Your task to perform on an android device: Open my contact list Image 0: 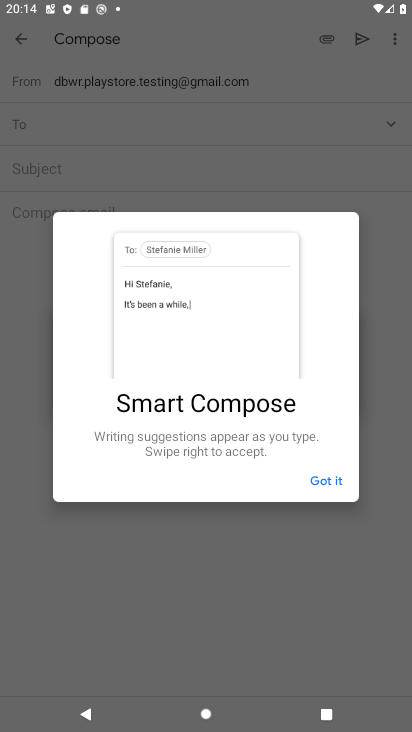
Step 0: press home button
Your task to perform on an android device: Open my contact list Image 1: 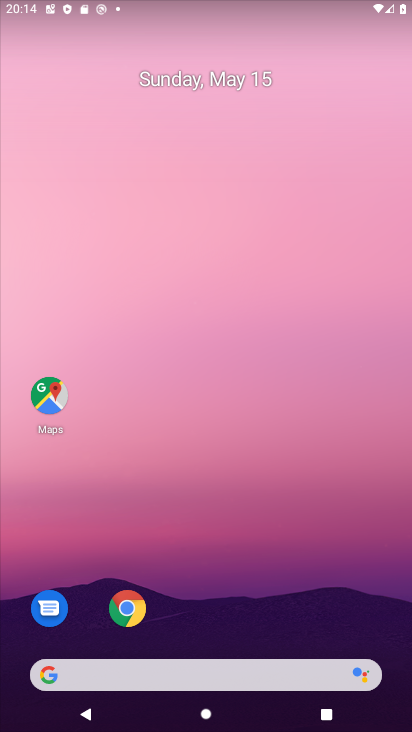
Step 1: drag from (224, 618) to (228, 104)
Your task to perform on an android device: Open my contact list Image 2: 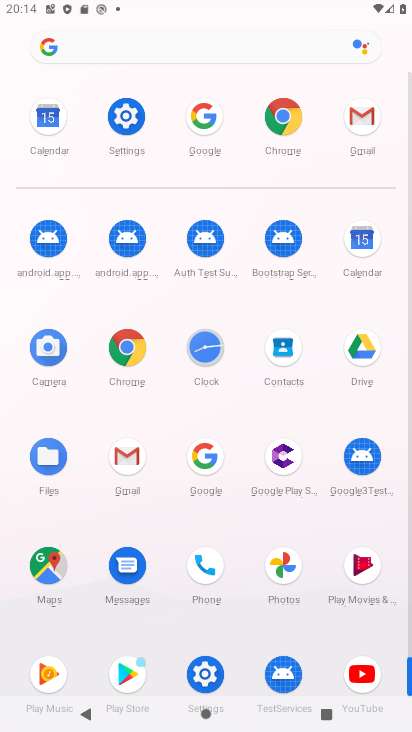
Step 2: click (280, 352)
Your task to perform on an android device: Open my contact list Image 3: 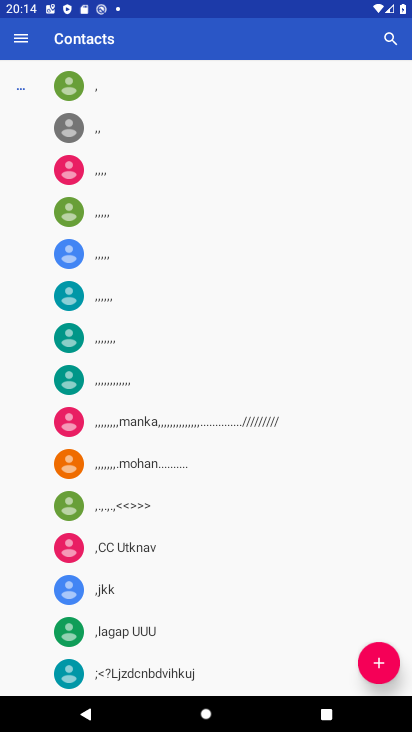
Step 3: task complete